Your task to perform on an android device: What's on my calendar tomorrow? Image 0: 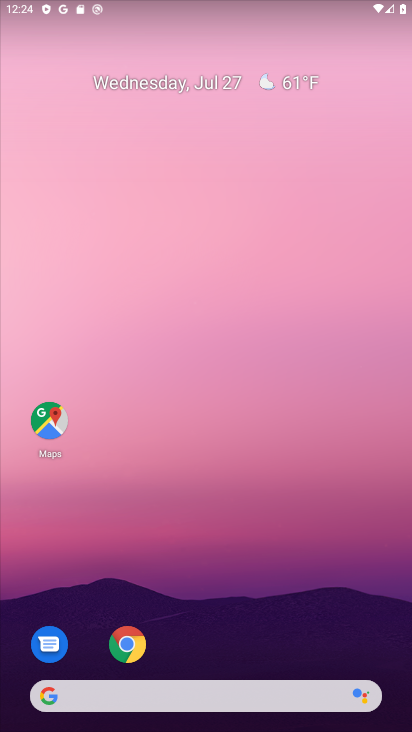
Step 0: drag from (220, 597) to (332, 259)
Your task to perform on an android device: What's on my calendar tomorrow? Image 1: 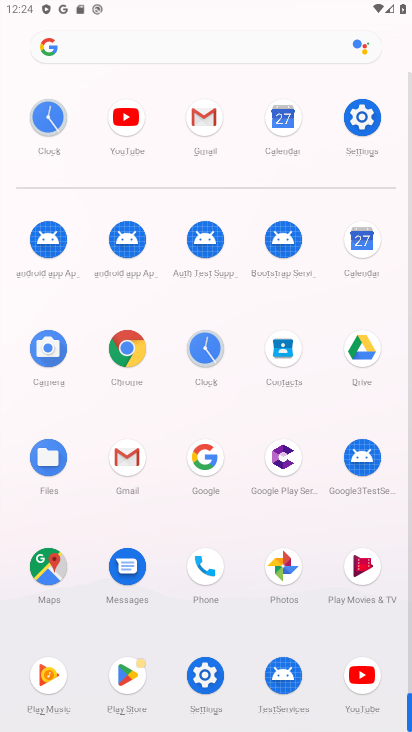
Step 1: drag from (225, 609) to (260, 194)
Your task to perform on an android device: What's on my calendar tomorrow? Image 2: 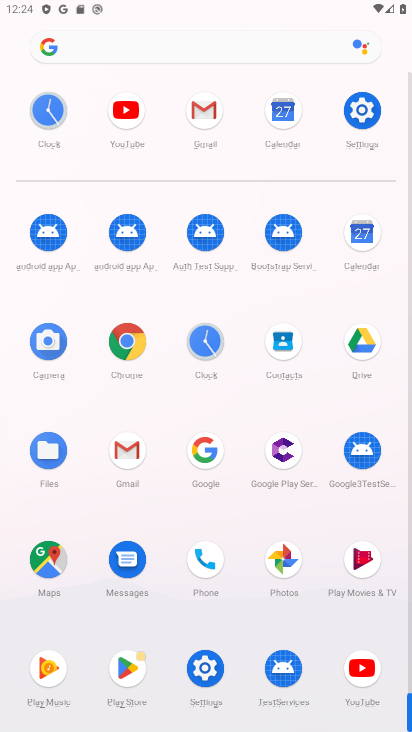
Step 2: click (349, 228)
Your task to perform on an android device: What's on my calendar tomorrow? Image 3: 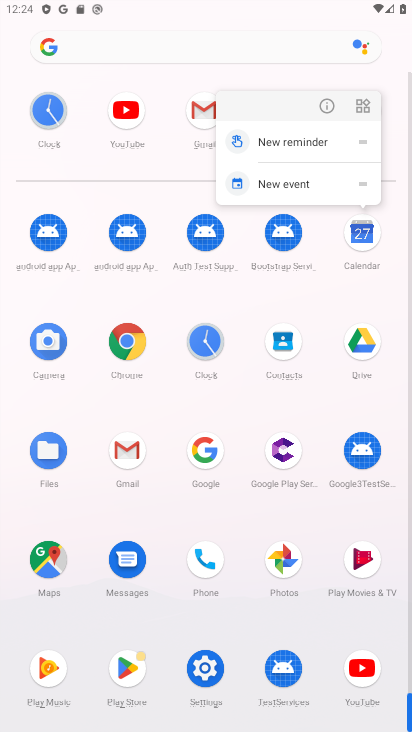
Step 3: click (323, 114)
Your task to perform on an android device: What's on my calendar tomorrow? Image 4: 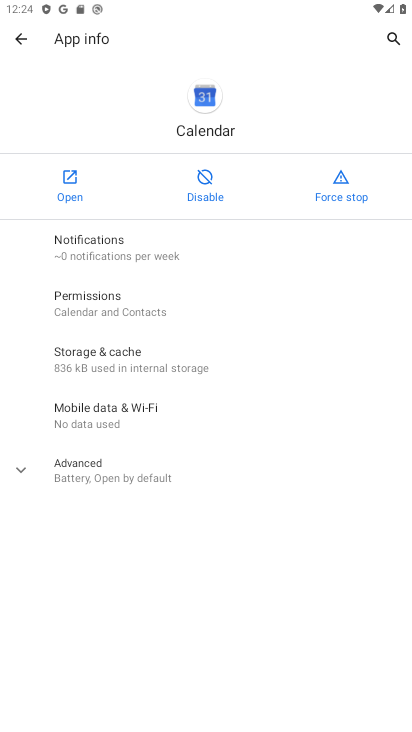
Step 4: click (55, 179)
Your task to perform on an android device: What's on my calendar tomorrow? Image 5: 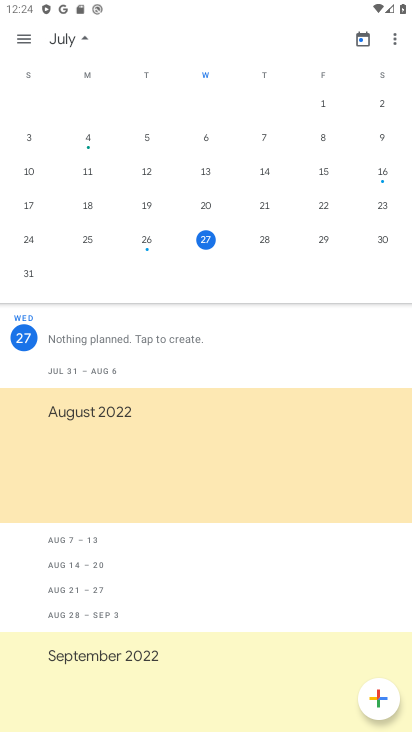
Step 5: click (261, 242)
Your task to perform on an android device: What's on my calendar tomorrow? Image 6: 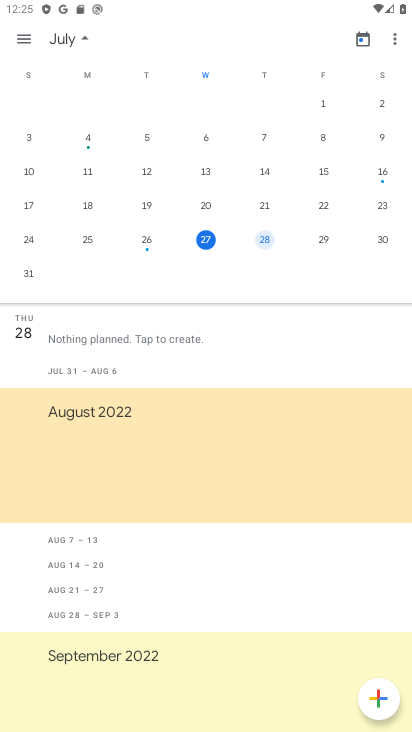
Step 6: task complete